Your task to perform on an android device: turn on the 24-hour format for clock Image 0: 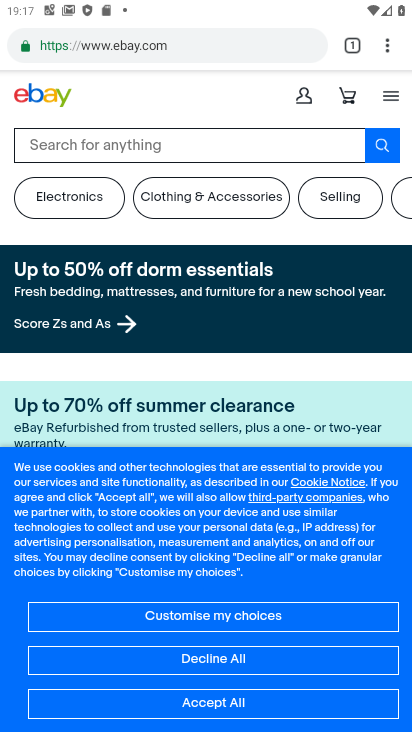
Step 0: press home button
Your task to perform on an android device: turn on the 24-hour format for clock Image 1: 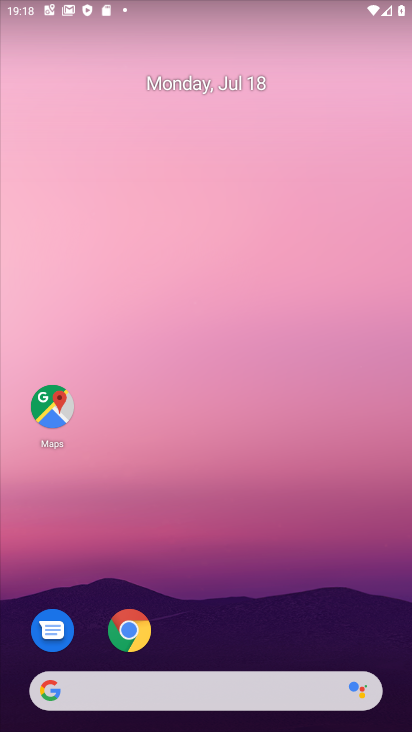
Step 1: drag from (278, 528) to (171, 37)
Your task to perform on an android device: turn on the 24-hour format for clock Image 2: 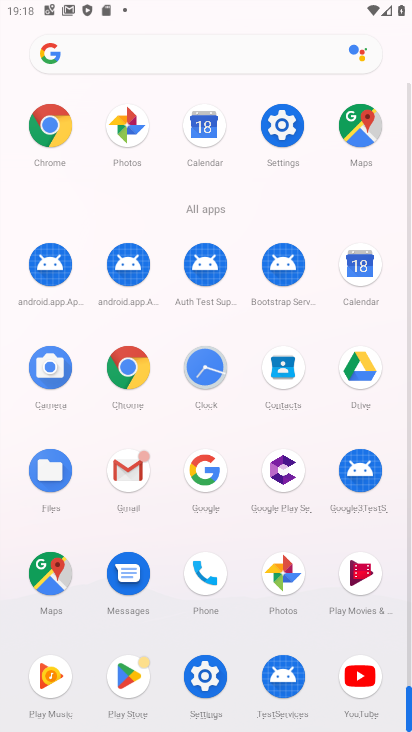
Step 2: click (205, 358)
Your task to perform on an android device: turn on the 24-hour format for clock Image 3: 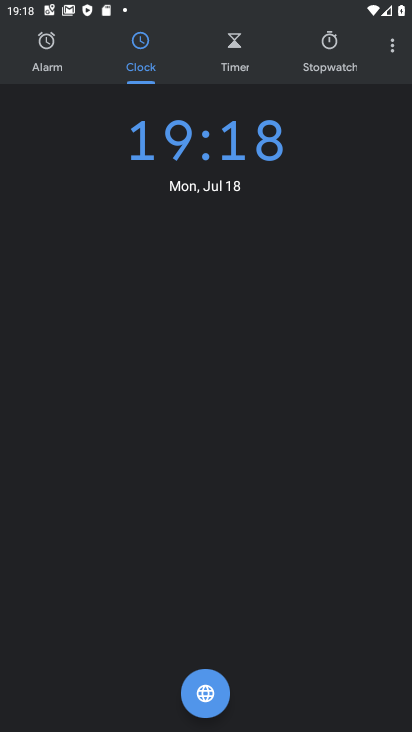
Step 3: click (397, 46)
Your task to perform on an android device: turn on the 24-hour format for clock Image 4: 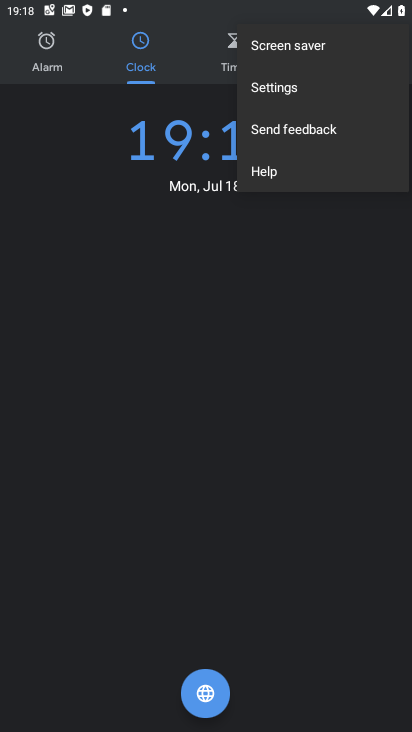
Step 4: click (294, 89)
Your task to perform on an android device: turn on the 24-hour format for clock Image 5: 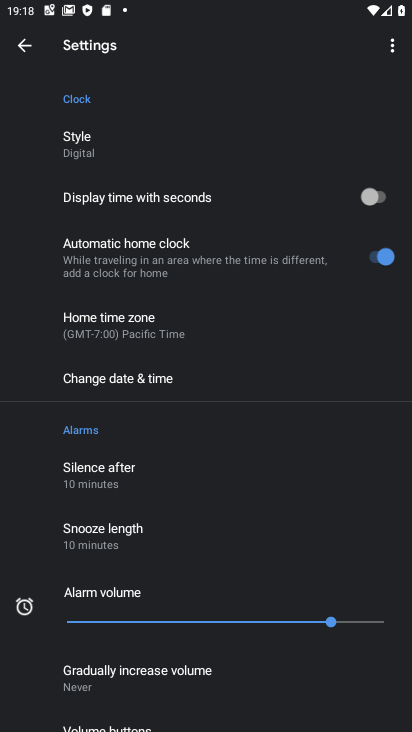
Step 5: click (132, 380)
Your task to perform on an android device: turn on the 24-hour format for clock Image 6: 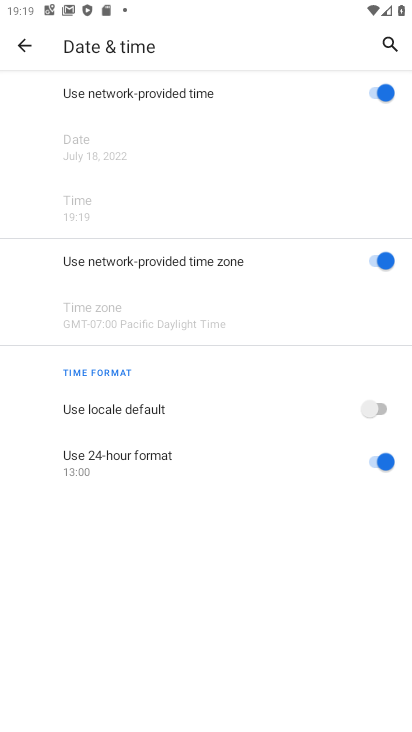
Step 6: task complete